Your task to perform on an android device: open sync settings in chrome Image 0: 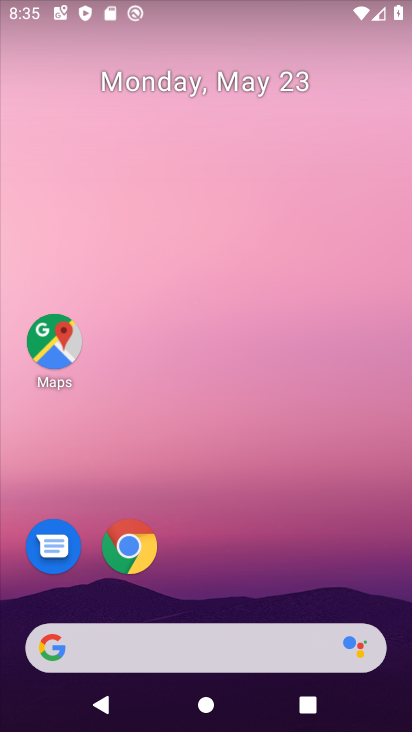
Step 0: click (134, 548)
Your task to perform on an android device: open sync settings in chrome Image 1: 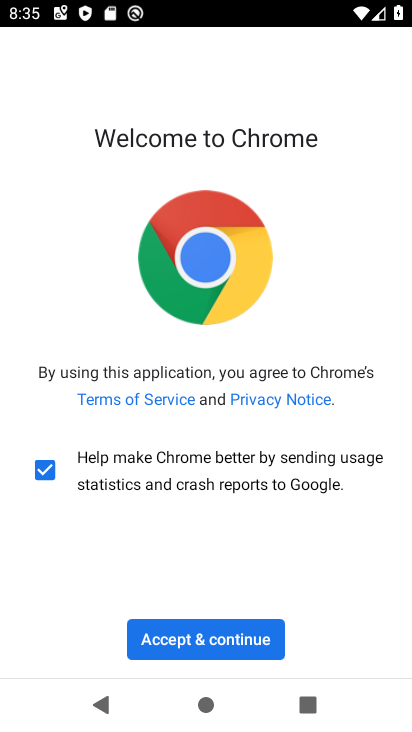
Step 1: click (199, 641)
Your task to perform on an android device: open sync settings in chrome Image 2: 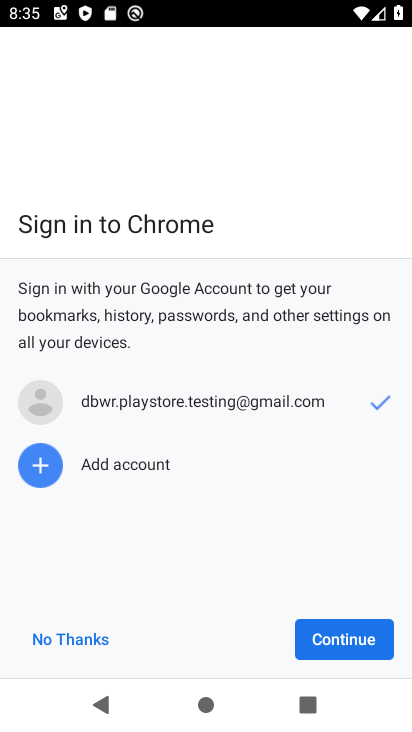
Step 2: click (342, 640)
Your task to perform on an android device: open sync settings in chrome Image 3: 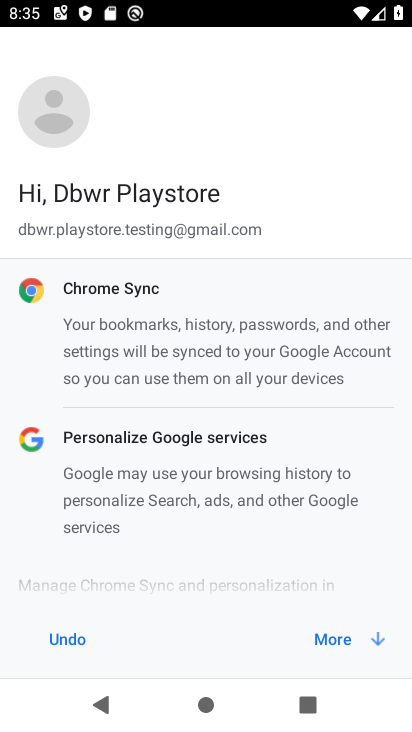
Step 3: click (331, 637)
Your task to perform on an android device: open sync settings in chrome Image 4: 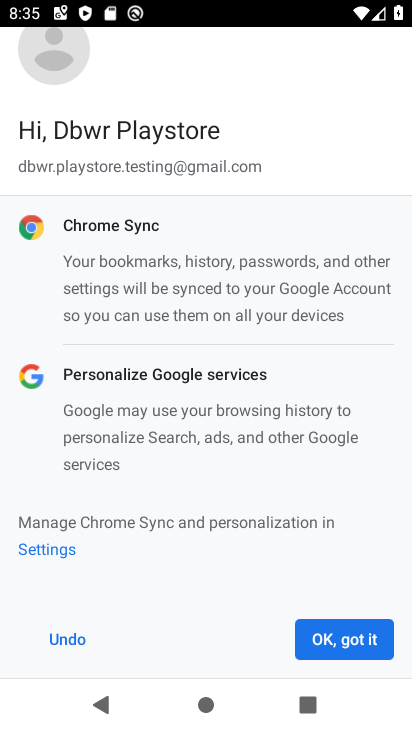
Step 4: click (331, 637)
Your task to perform on an android device: open sync settings in chrome Image 5: 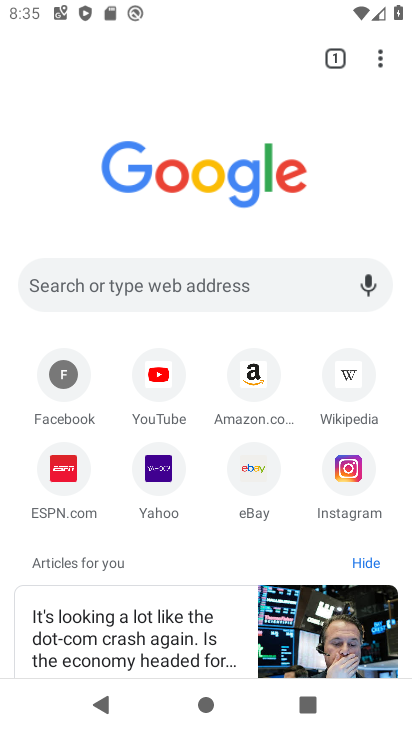
Step 5: click (378, 61)
Your task to perform on an android device: open sync settings in chrome Image 6: 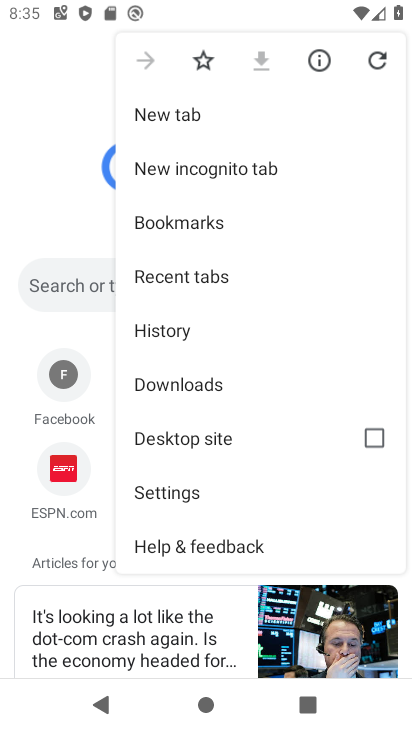
Step 6: click (176, 492)
Your task to perform on an android device: open sync settings in chrome Image 7: 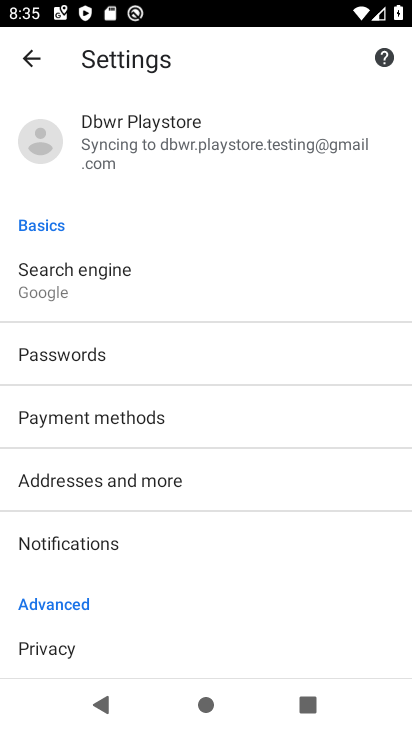
Step 7: click (138, 131)
Your task to perform on an android device: open sync settings in chrome Image 8: 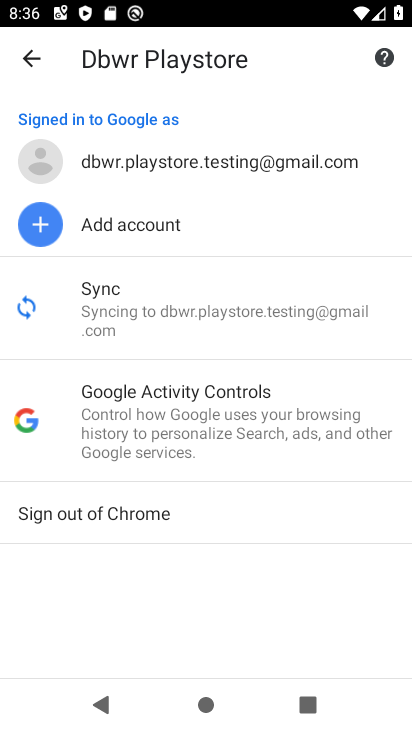
Step 8: click (119, 316)
Your task to perform on an android device: open sync settings in chrome Image 9: 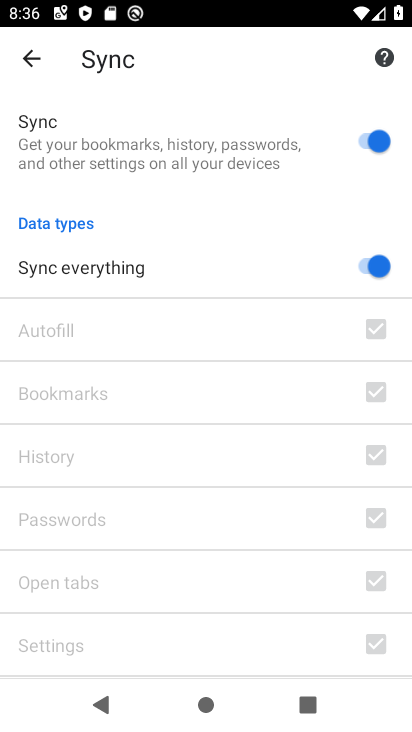
Step 9: task complete